Your task to perform on an android device: See recent photos Image 0: 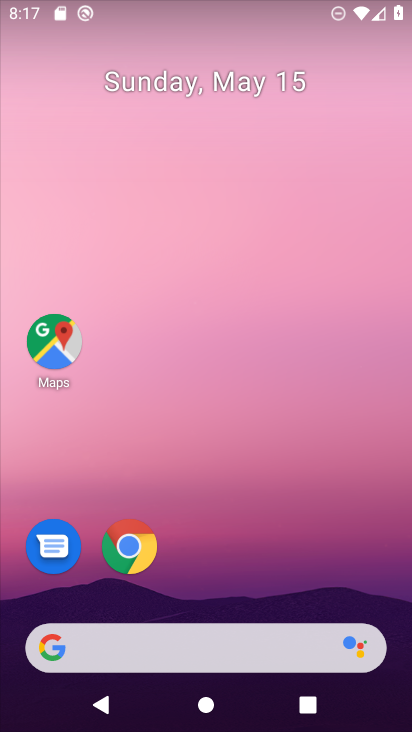
Step 0: drag from (257, 551) to (204, 59)
Your task to perform on an android device: See recent photos Image 1: 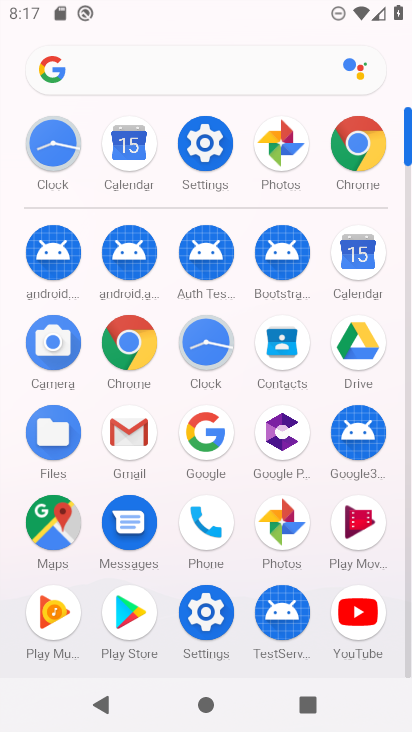
Step 1: click (272, 139)
Your task to perform on an android device: See recent photos Image 2: 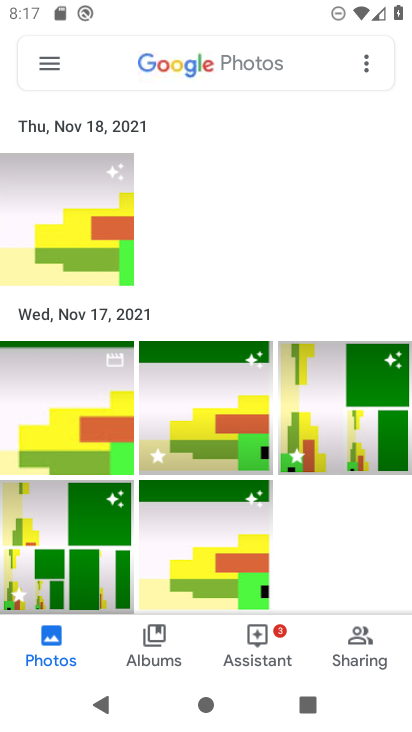
Step 2: task complete